Your task to perform on an android device: Open Amazon Image 0: 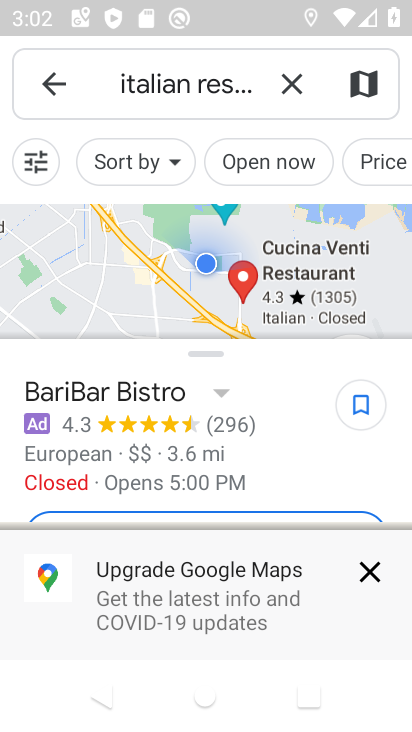
Step 0: click (230, 3)
Your task to perform on an android device: Open Amazon Image 1: 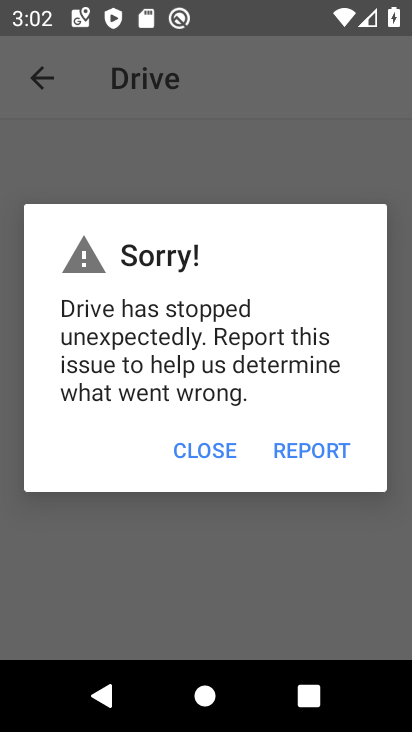
Step 1: press back button
Your task to perform on an android device: Open Amazon Image 2: 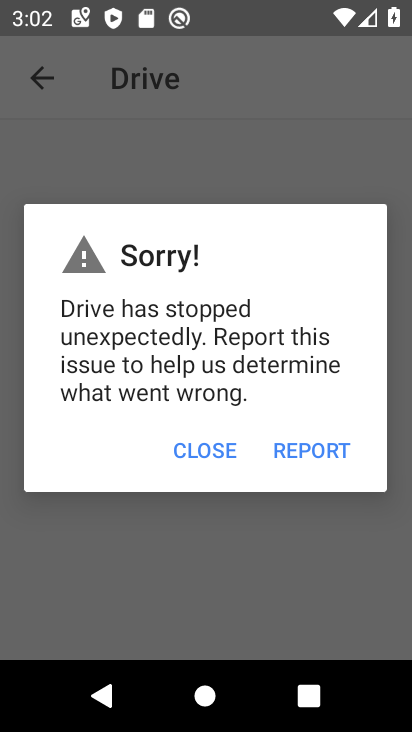
Step 2: press home button
Your task to perform on an android device: Open Amazon Image 3: 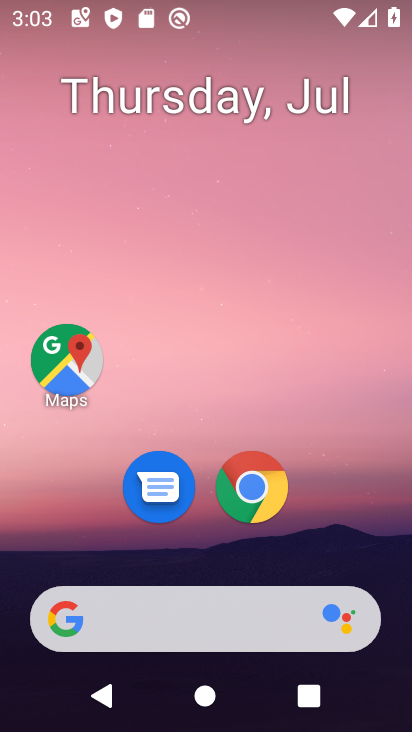
Step 3: click (221, 493)
Your task to perform on an android device: Open Amazon Image 4: 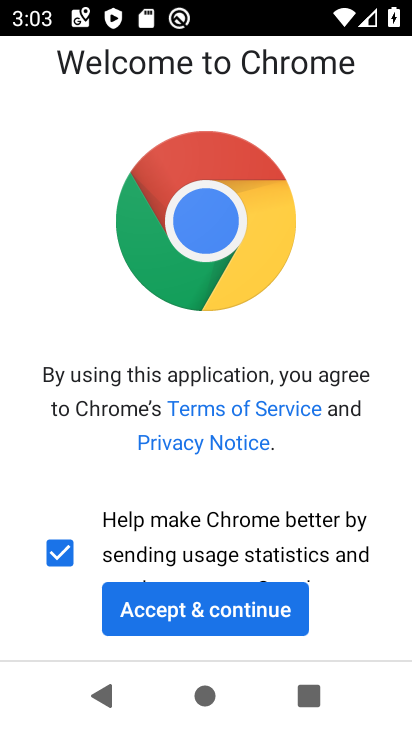
Step 4: click (255, 616)
Your task to perform on an android device: Open Amazon Image 5: 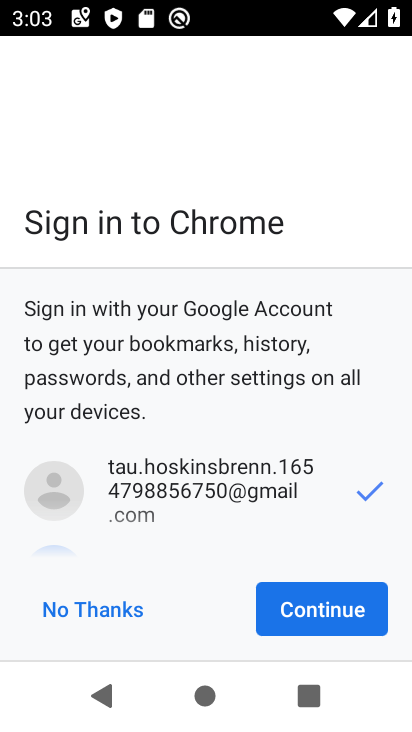
Step 5: click (362, 594)
Your task to perform on an android device: Open Amazon Image 6: 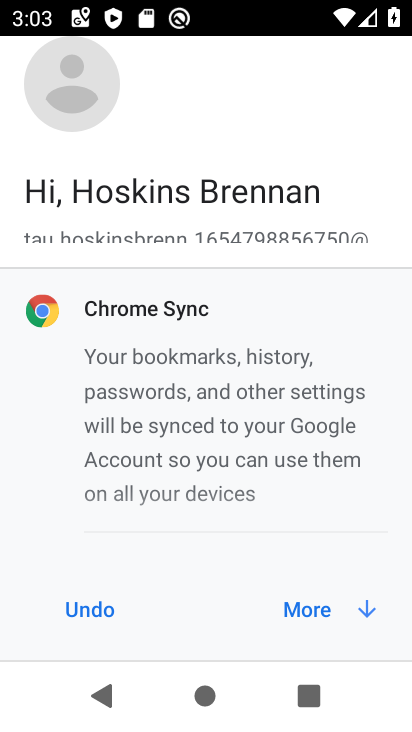
Step 6: click (303, 614)
Your task to perform on an android device: Open Amazon Image 7: 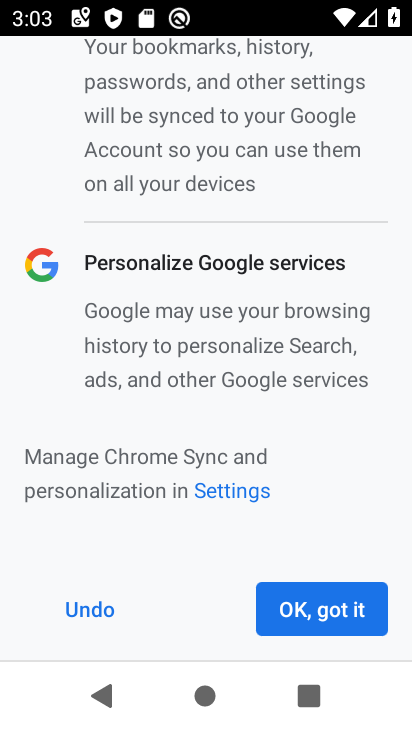
Step 7: click (293, 608)
Your task to perform on an android device: Open Amazon Image 8: 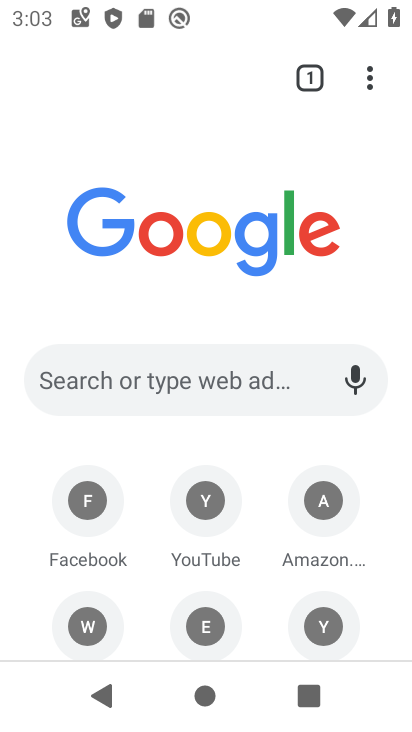
Step 8: click (318, 513)
Your task to perform on an android device: Open Amazon Image 9: 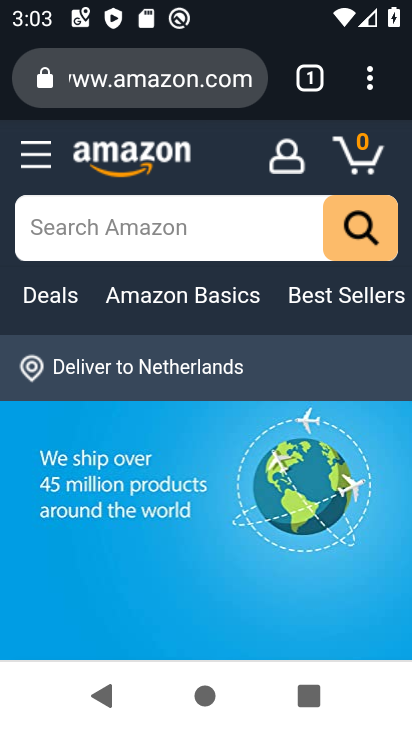
Step 9: task complete